Your task to perform on an android device: Go to Android settings Image 0: 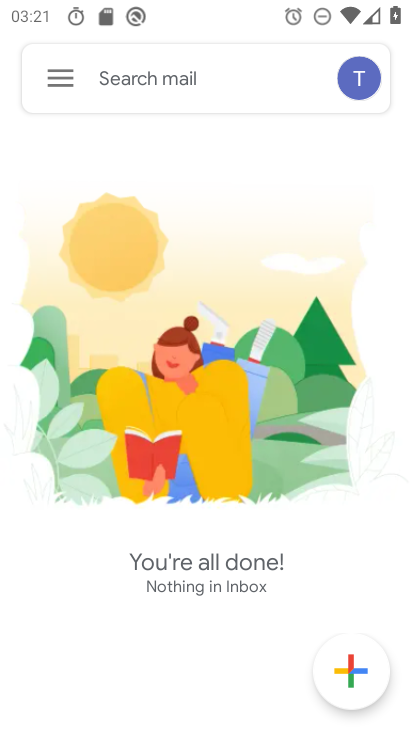
Step 0: press home button
Your task to perform on an android device: Go to Android settings Image 1: 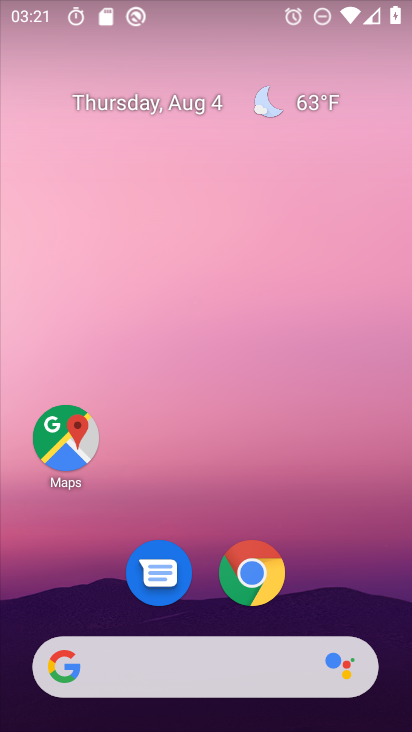
Step 1: drag from (331, 562) to (279, 95)
Your task to perform on an android device: Go to Android settings Image 2: 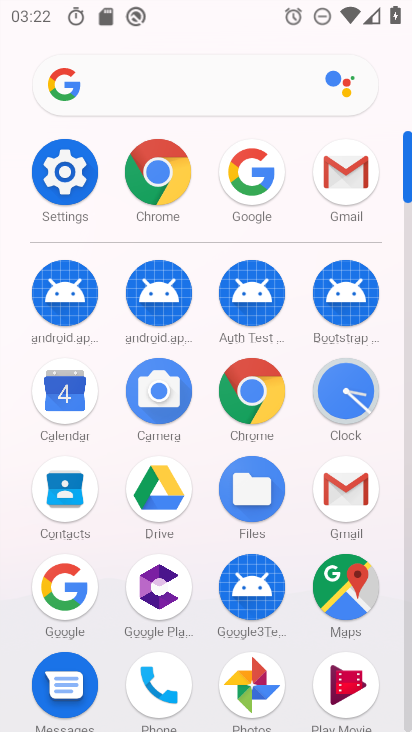
Step 2: click (69, 155)
Your task to perform on an android device: Go to Android settings Image 3: 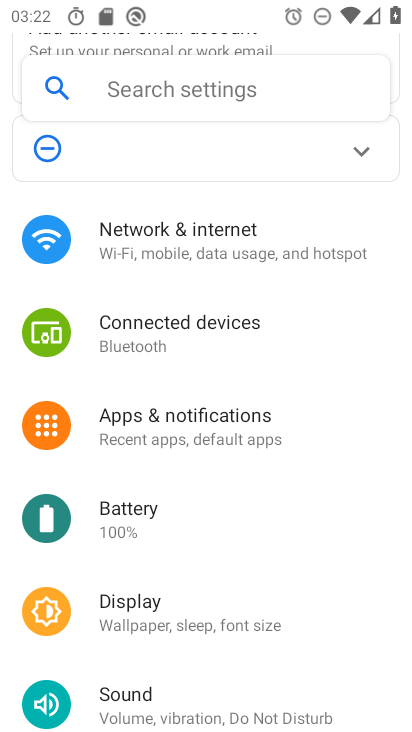
Step 3: task complete